Your task to perform on an android device: Open maps Image 0: 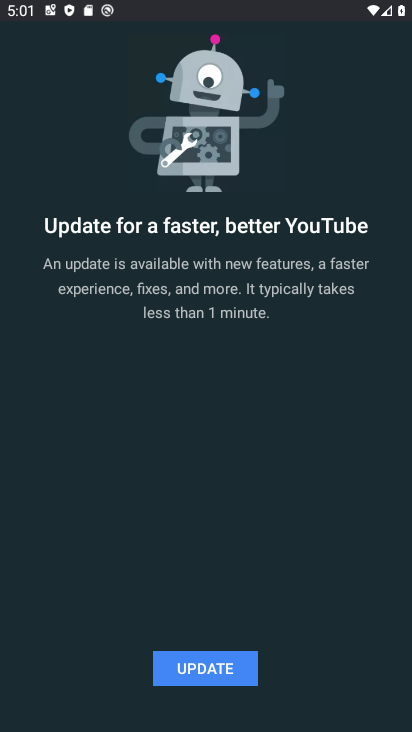
Step 0: press back button
Your task to perform on an android device: Open maps Image 1: 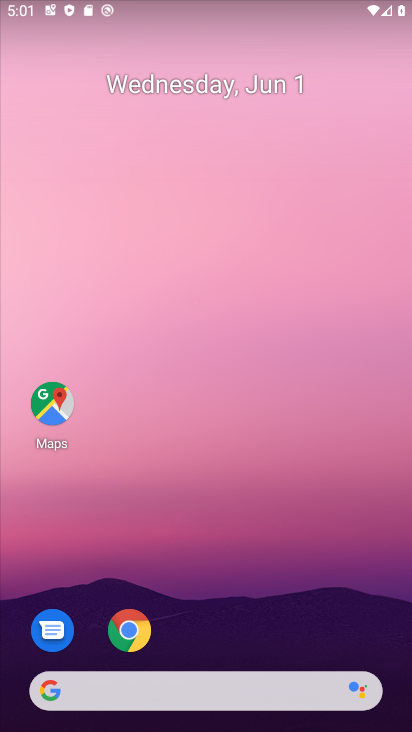
Step 1: drag from (184, 617) to (251, 322)
Your task to perform on an android device: Open maps Image 2: 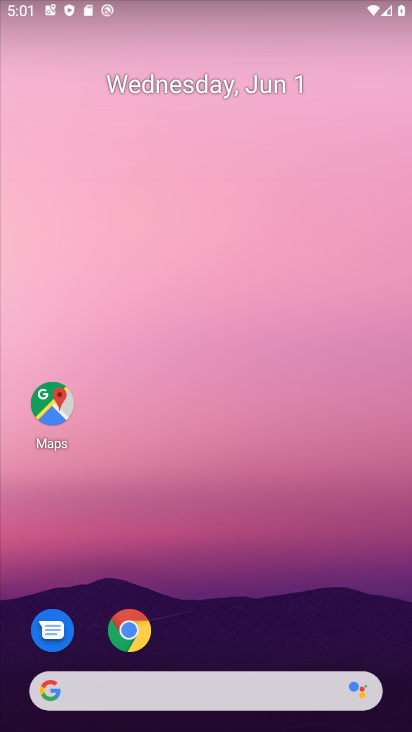
Step 2: click (49, 401)
Your task to perform on an android device: Open maps Image 3: 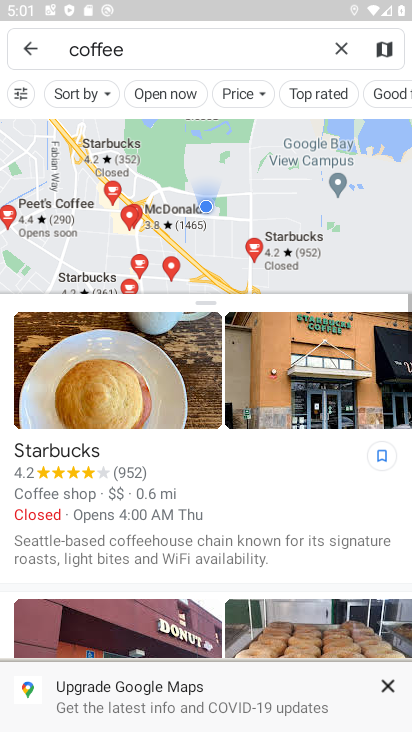
Step 3: task complete